Your task to perform on an android device: find snoozed emails in the gmail app Image 0: 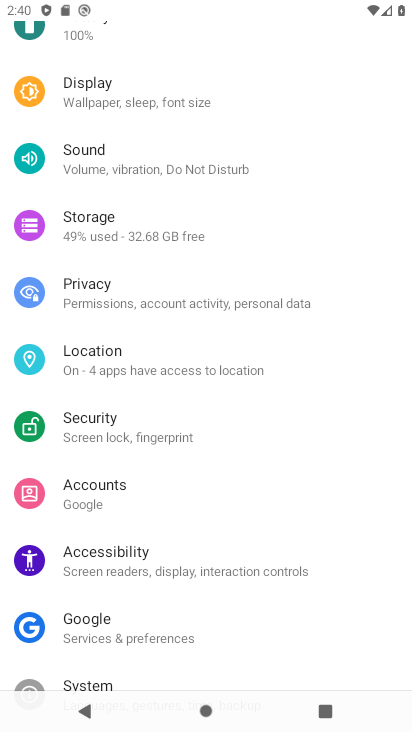
Step 0: press home button
Your task to perform on an android device: find snoozed emails in the gmail app Image 1: 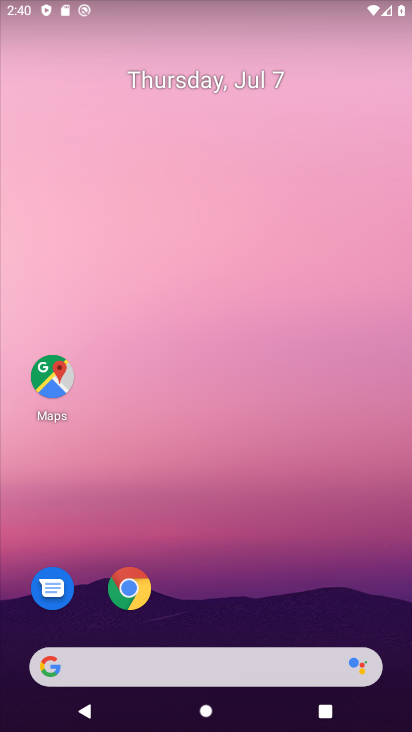
Step 1: drag from (244, 562) to (296, 234)
Your task to perform on an android device: find snoozed emails in the gmail app Image 2: 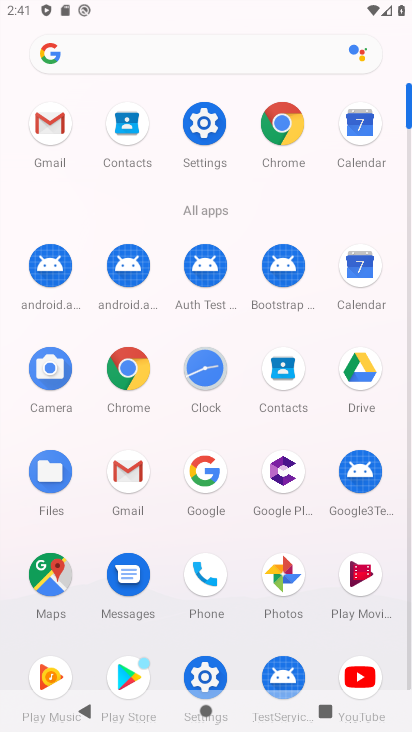
Step 2: click (129, 473)
Your task to perform on an android device: find snoozed emails in the gmail app Image 3: 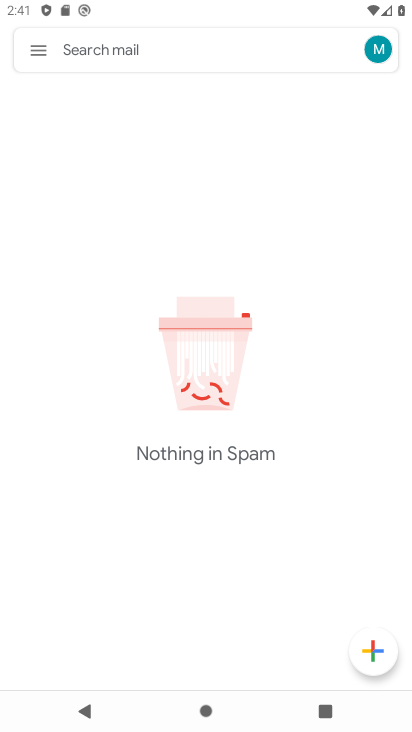
Step 3: click (42, 52)
Your task to perform on an android device: find snoozed emails in the gmail app Image 4: 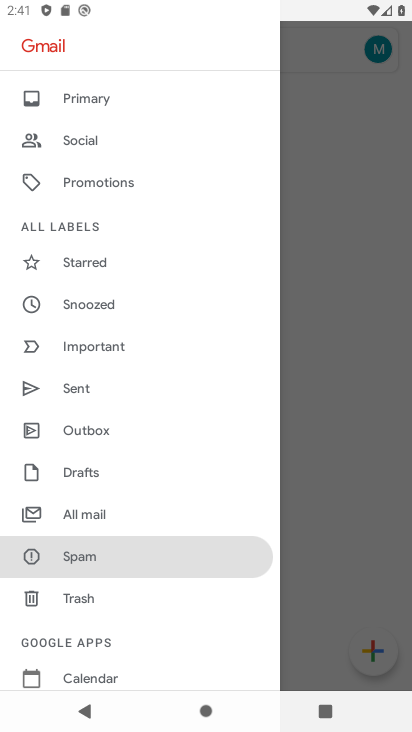
Step 4: click (108, 302)
Your task to perform on an android device: find snoozed emails in the gmail app Image 5: 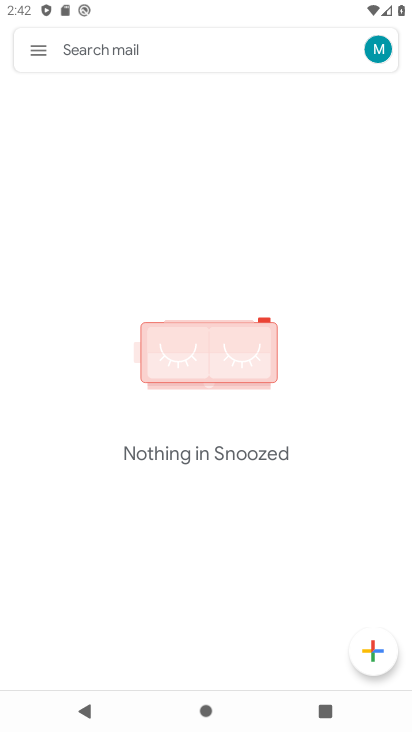
Step 5: task complete